Your task to perform on an android device: What's the weather today? Image 0: 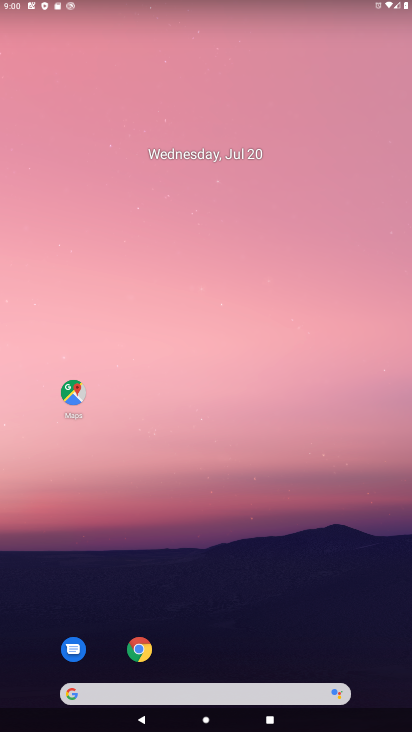
Step 0: drag from (239, 661) to (236, 293)
Your task to perform on an android device: What's the weather today? Image 1: 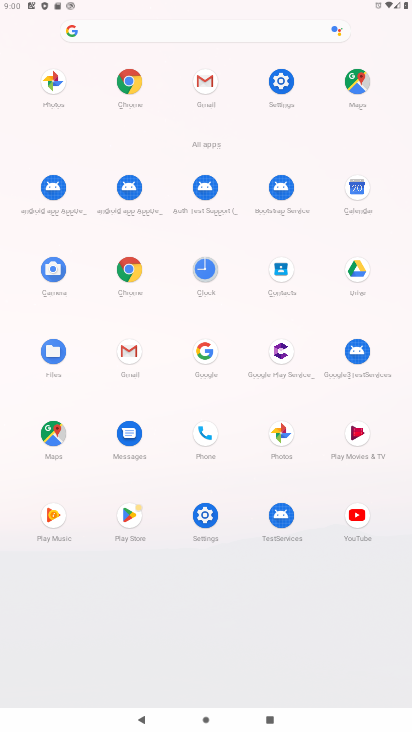
Step 1: click (210, 352)
Your task to perform on an android device: What's the weather today? Image 2: 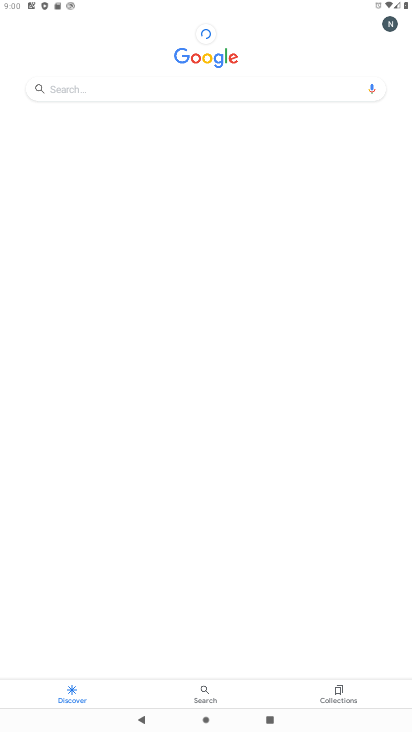
Step 2: drag from (89, 85) to (9, 85)
Your task to perform on an android device: What's the weather today? Image 3: 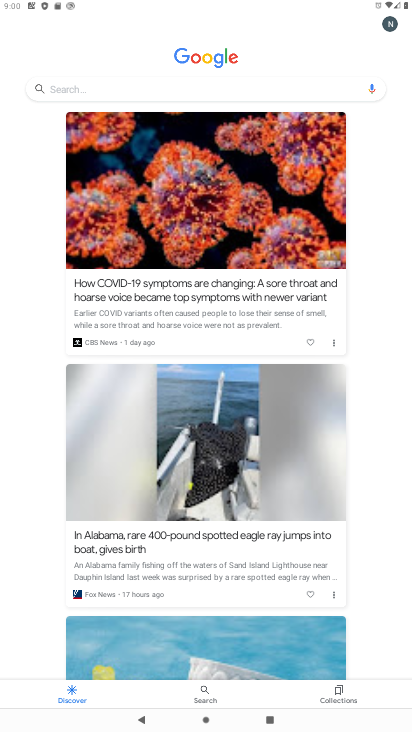
Step 3: click (78, 91)
Your task to perform on an android device: What's the weather today? Image 4: 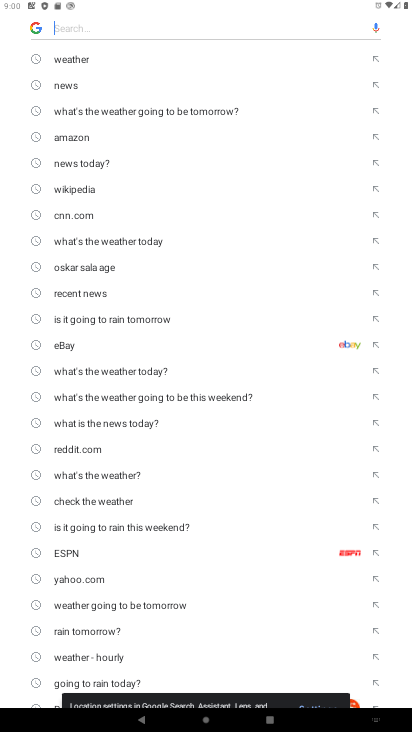
Step 4: click (81, 62)
Your task to perform on an android device: What's the weather today? Image 5: 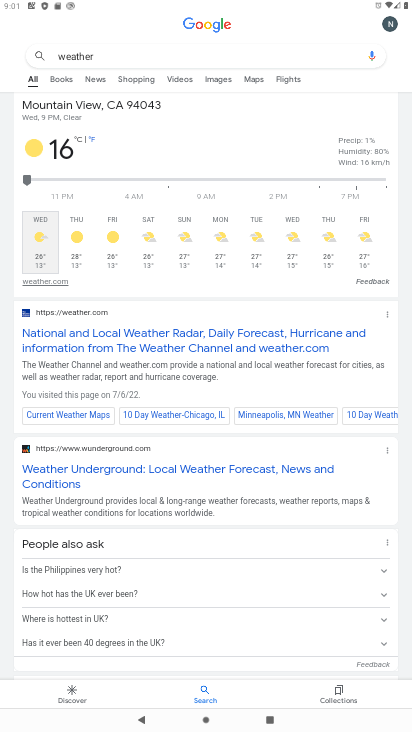
Step 5: task complete